Your task to perform on an android device: Go to battery settings Image 0: 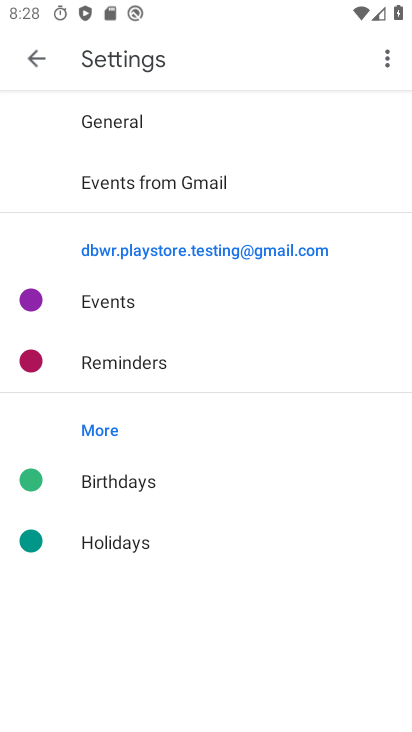
Step 0: press home button
Your task to perform on an android device: Go to battery settings Image 1: 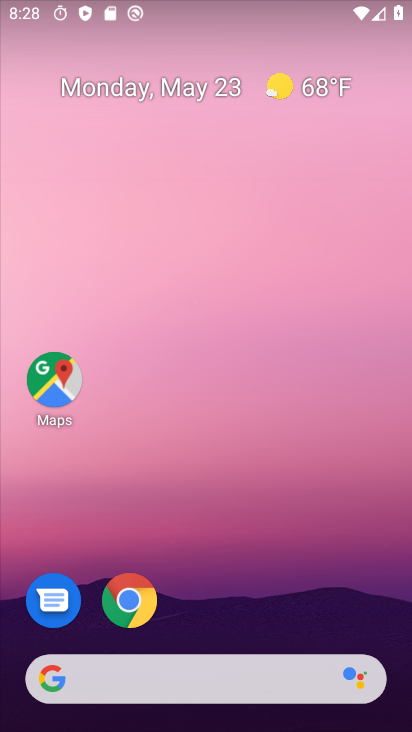
Step 1: drag from (11, 681) to (251, 216)
Your task to perform on an android device: Go to battery settings Image 2: 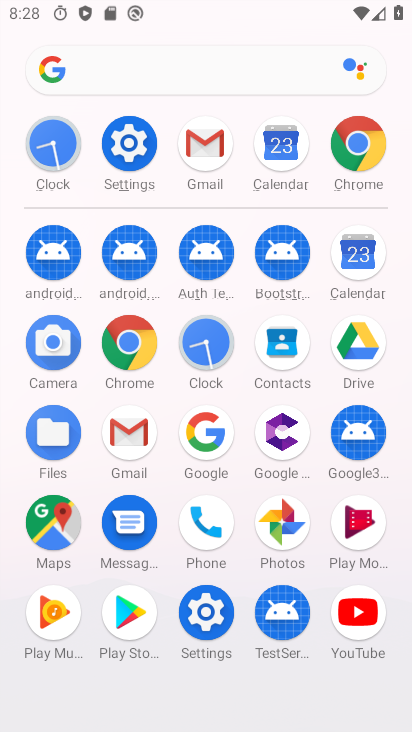
Step 2: click (120, 132)
Your task to perform on an android device: Go to battery settings Image 3: 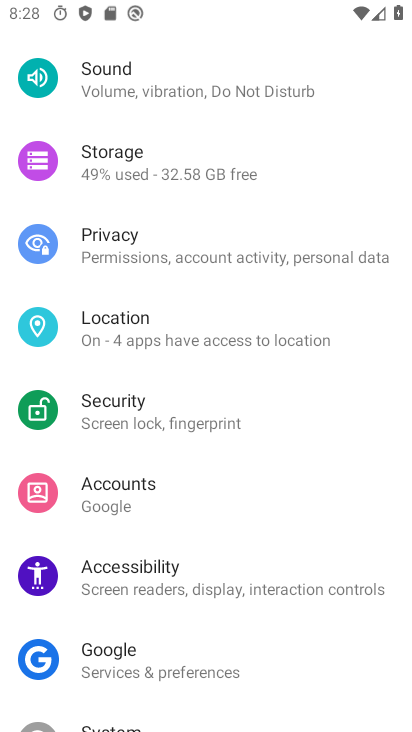
Step 3: drag from (223, 163) to (165, 620)
Your task to perform on an android device: Go to battery settings Image 4: 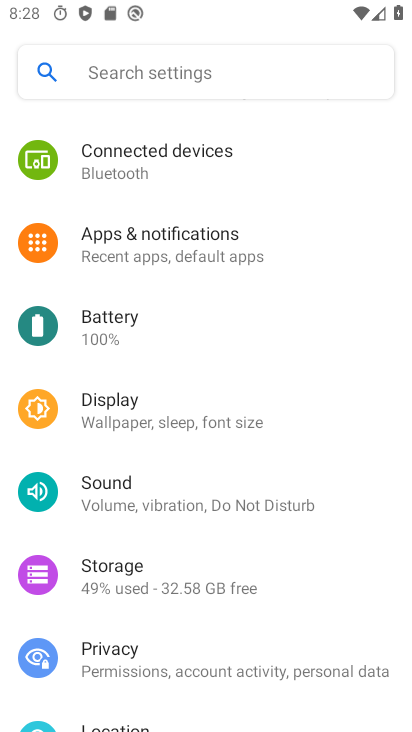
Step 4: click (184, 326)
Your task to perform on an android device: Go to battery settings Image 5: 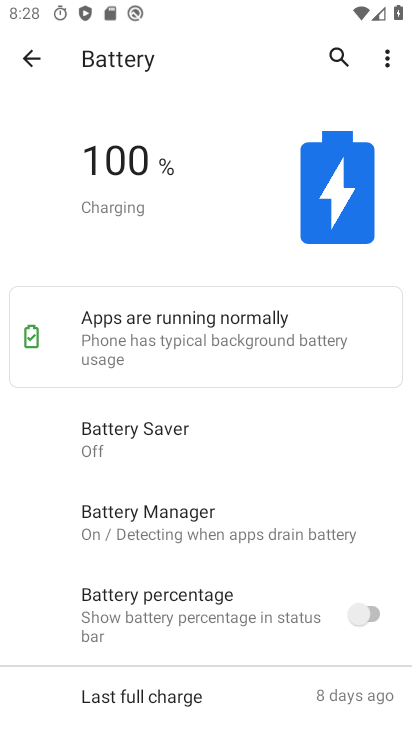
Step 5: task complete